Your task to perform on an android device: toggle wifi Image 0: 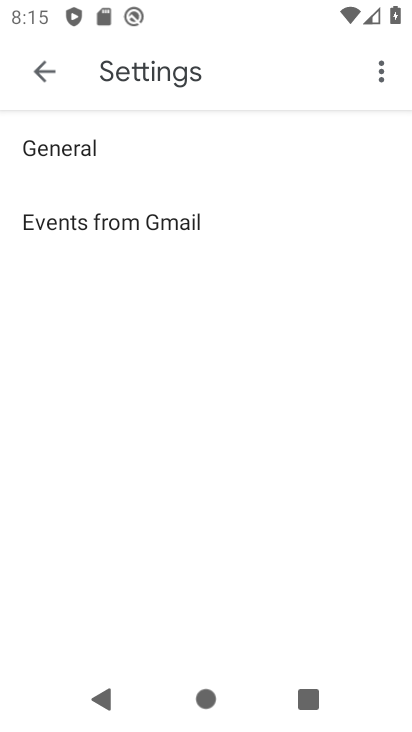
Step 0: press back button
Your task to perform on an android device: toggle wifi Image 1: 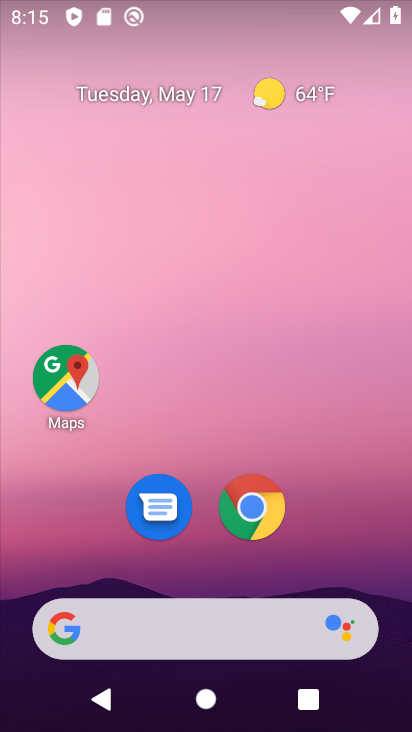
Step 1: drag from (334, 560) to (220, 96)
Your task to perform on an android device: toggle wifi Image 2: 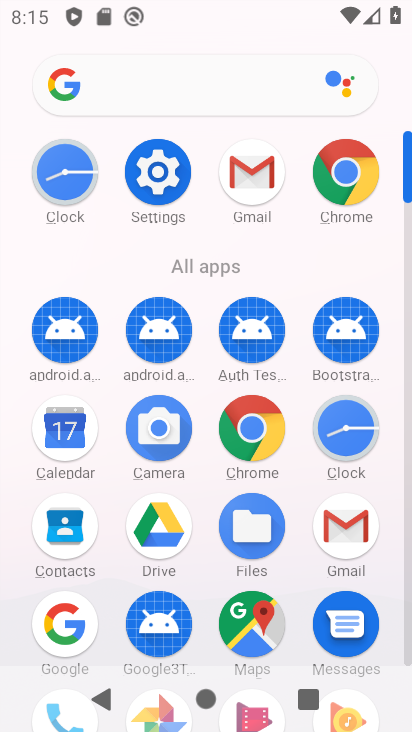
Step 2: click (159, 170)
Your task to perform on an android device: toggle wifi Image 3: 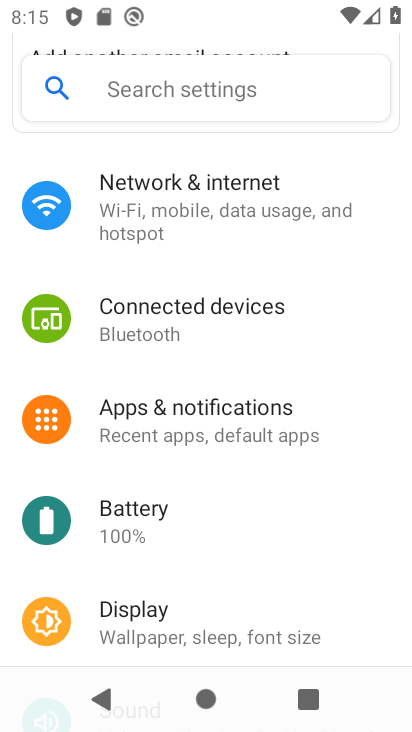
Step 3: click (140, 187)
Your task to perform on an android device: toggle wifi Image 4: 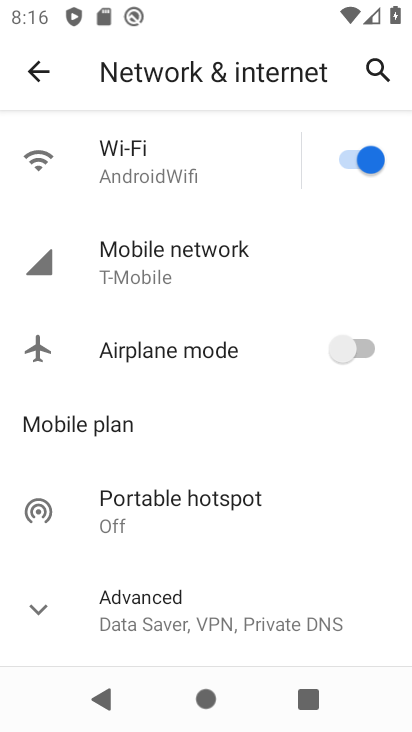
Step 4: click (380, 153)
Your task to perform on an android device: toggle wifi Image 5: 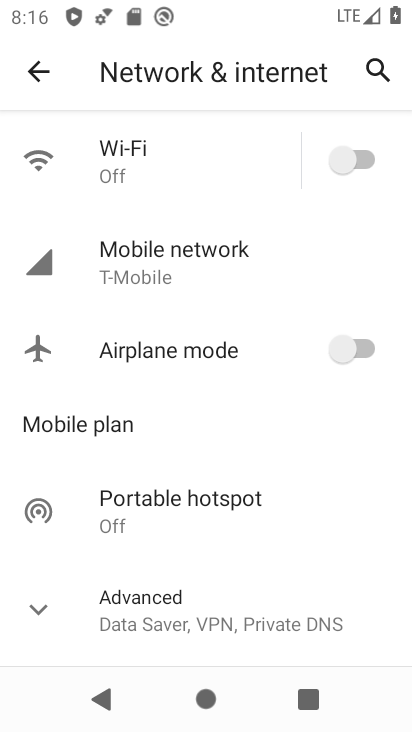
Step 5: task complete